Your task to perform on an android device: See recent photos Image 0: 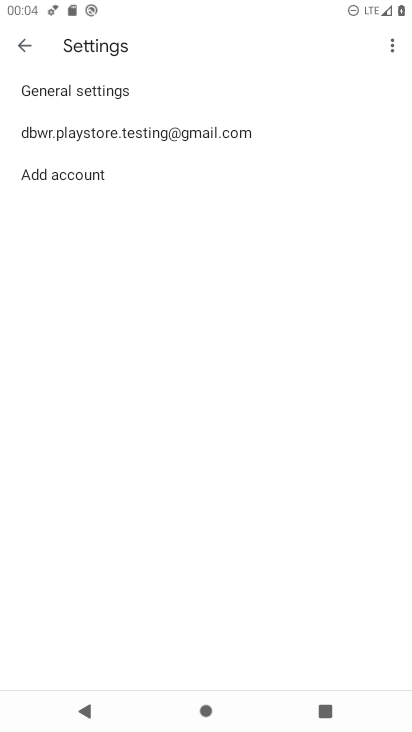
Step 0: press home button
Your task to perform on an android device: See recent photos Image 1: 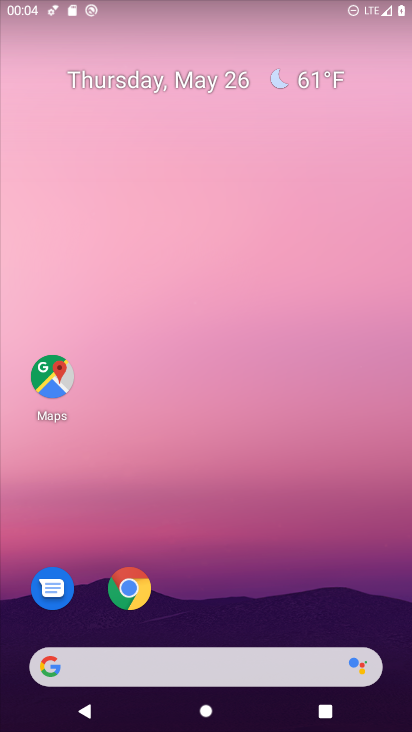
Step 1: drag from (169, 519) to (130, 63)
Your task to perform on an android device: See recent photos Image 2: 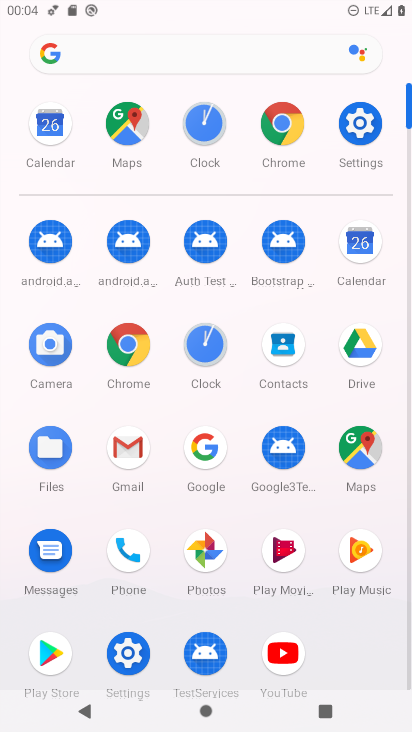
Step 2: click (200, 548)
Your task to perform on an android device: See recent photos Image 3: 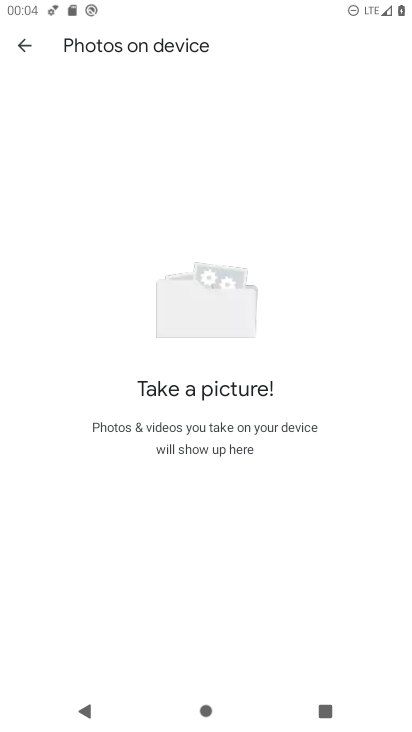
Step 3: click (25, 44)
Your task to perform on an android device: See recent photos Image 4: 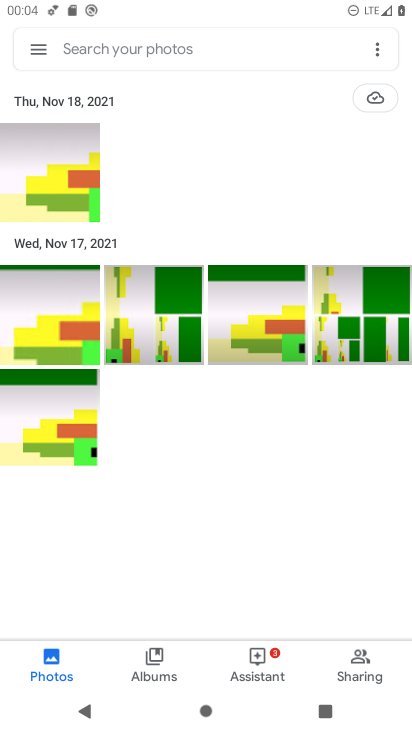
Step 4: task complete